Your task to perform on an android device: uninstall "Google Find My Device" Image 0: 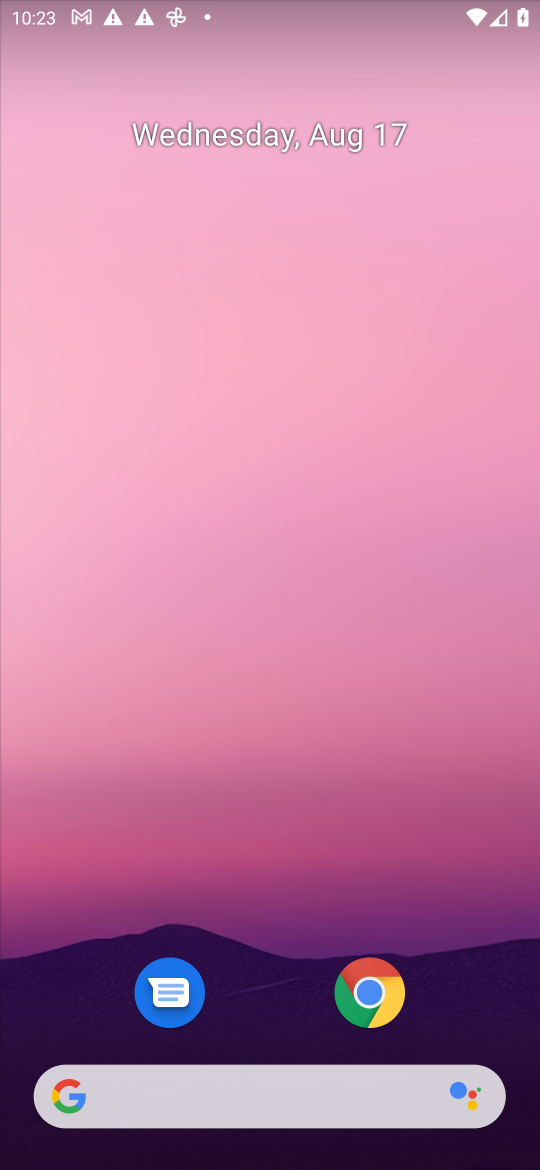
Step 0: drag from (494, 985) to (199, 23)
Your task to perform on an android device: uninstall "Google Find My Device" Image 1: 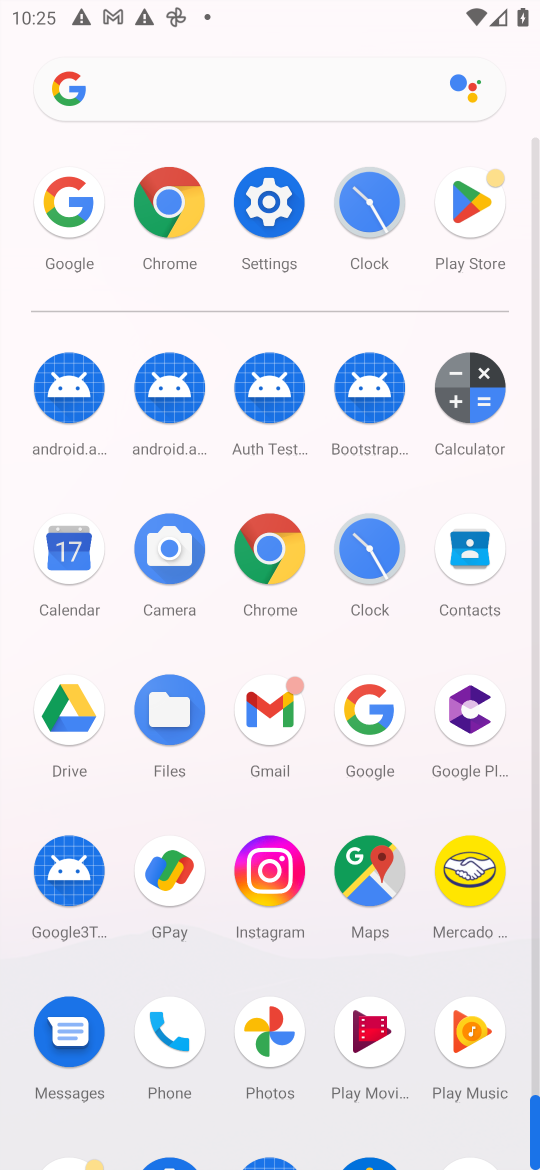
Step 1: click (470, 222)
Your task to perform on an android device: uninstall "Google Find My Device" Image 2: 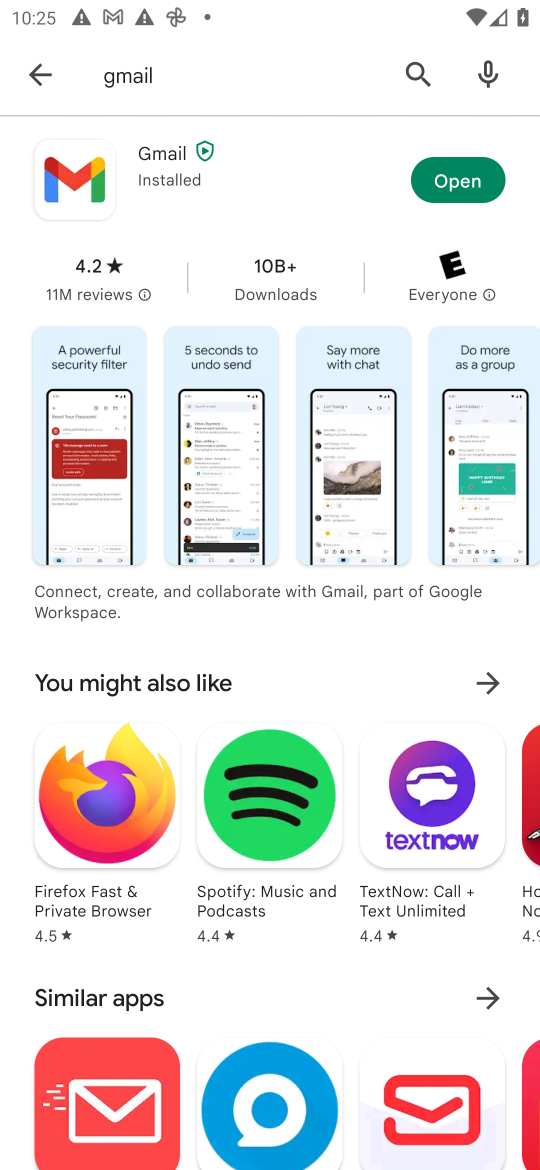
Step 2: press back button
Your task to perform on an android device: uninstall "Google Find My Device" Image 3: 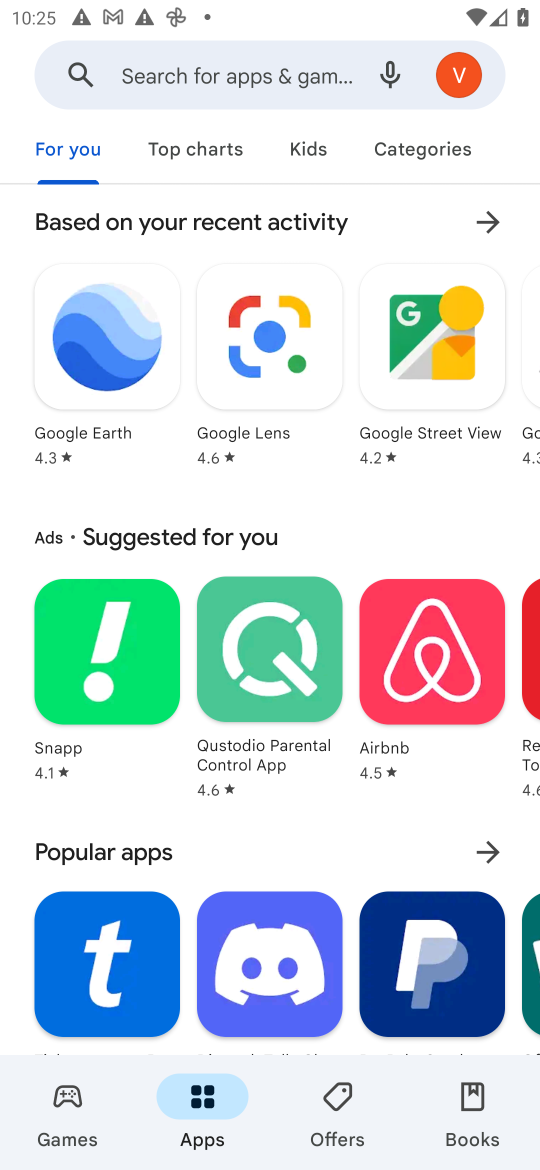
Step 3: click (142, 68)
Your task to perform on an android device: uninstall "Google Find My Device" Image 4: 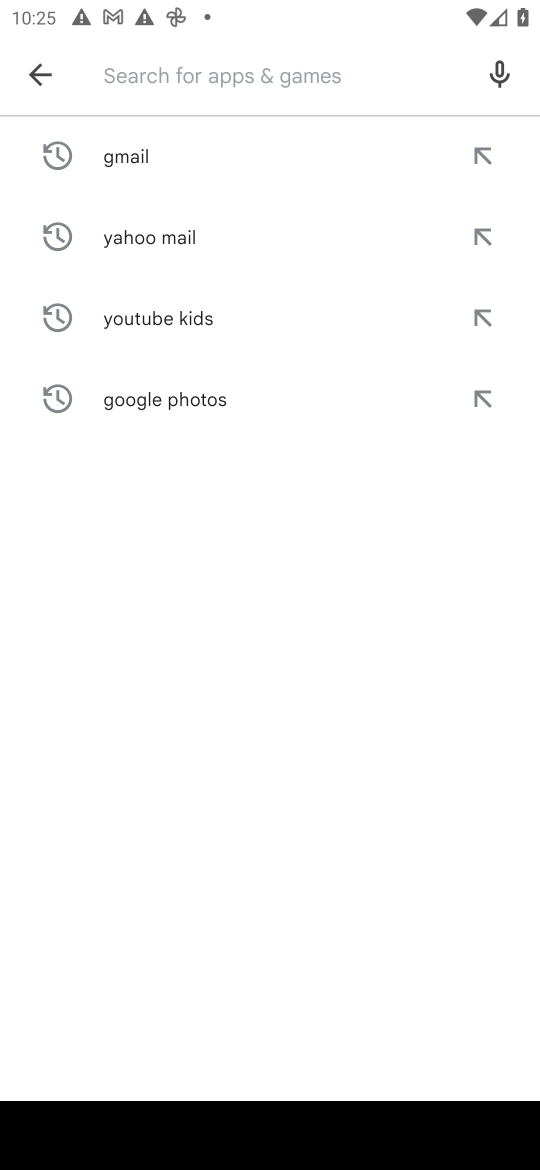
Step 4: type "Google Find My Device"
Your task to perform on an android device: uninstall "Google Find My Device" Image 5: 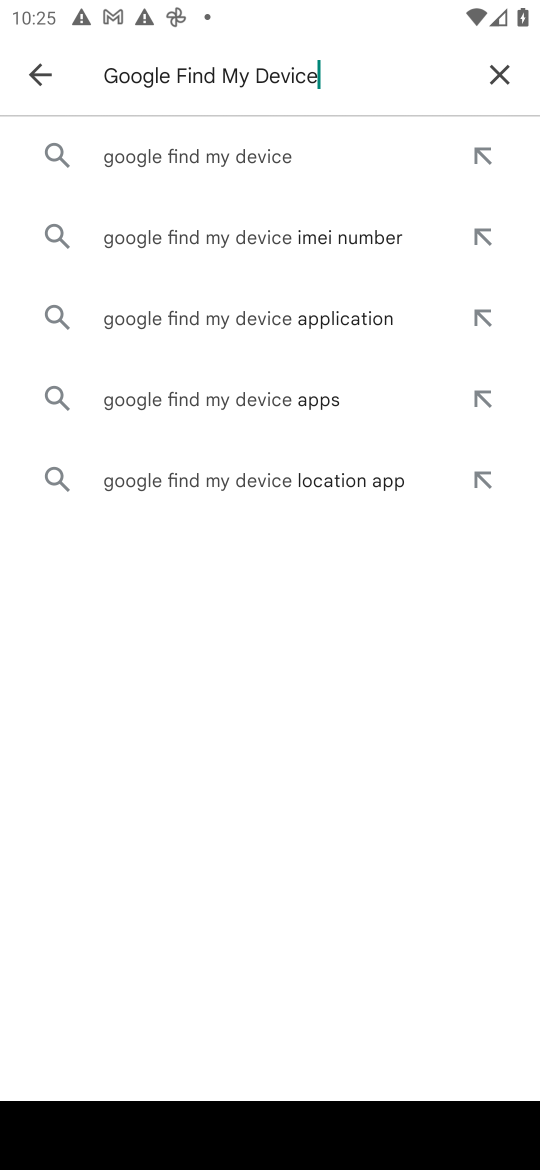
Step 5: click (154, 157)
Your task to perform on an android device: uninstall "Google Find My Device" Image 6: 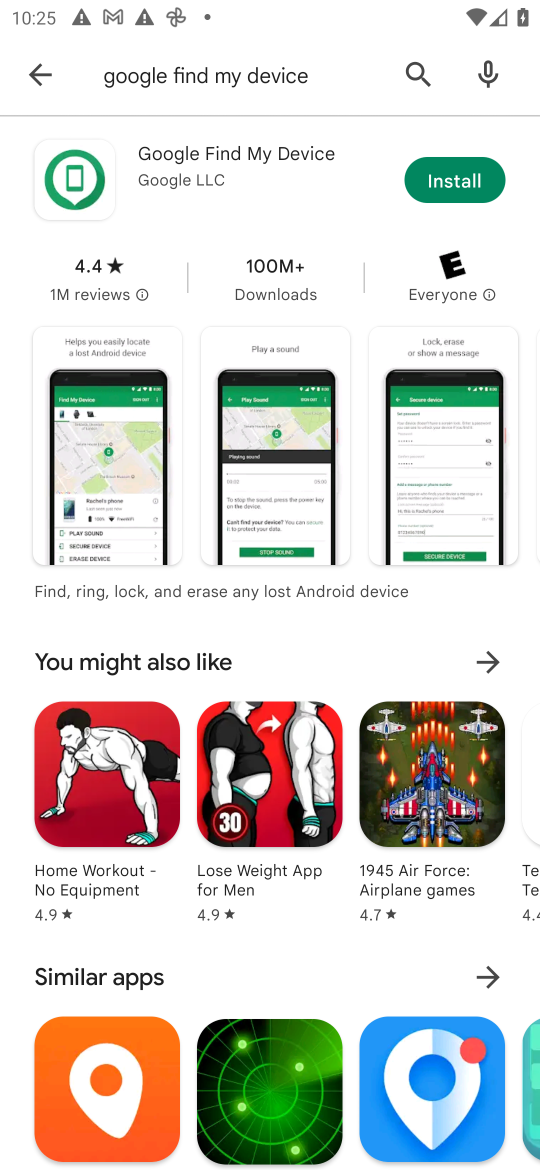
Step 6: task complete